Your task to perform on an android device: change the clock display to show seconds Image 0: 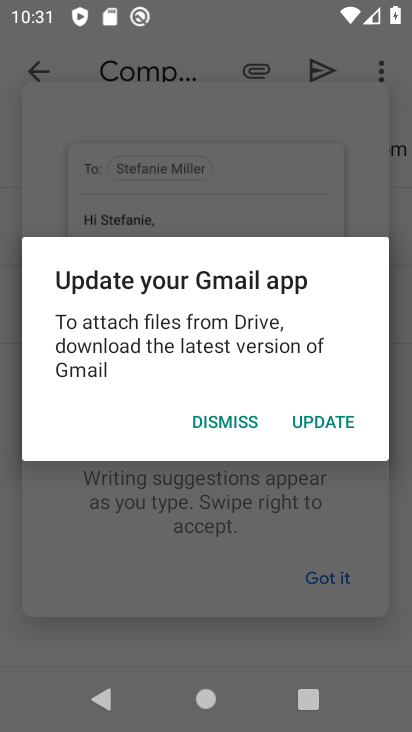
Step 0: press home button
Your task to perform on an android device: change the clock display to show seconds Image 1: 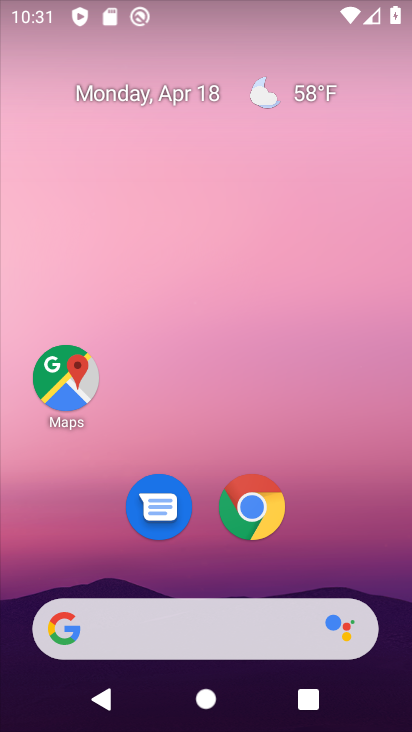
Step 1: drag from (185, 443) to (220, 33)
Your task to perform on an android device: change the clock display to show seconds Image 2: 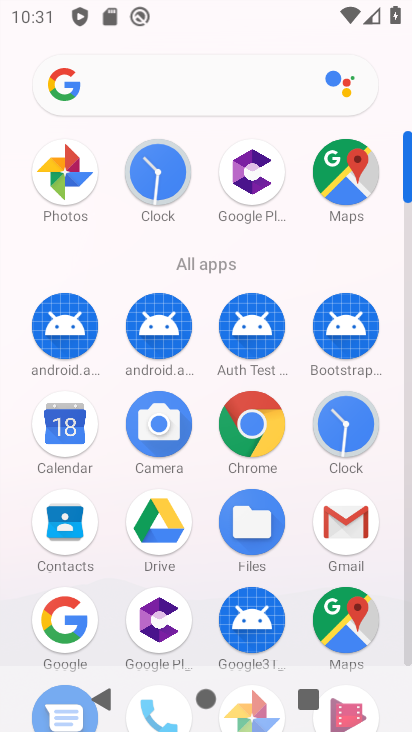
Step 2: click (359, 429)
Your task to perform on an android device: change the clock display to show seconds Image 3: 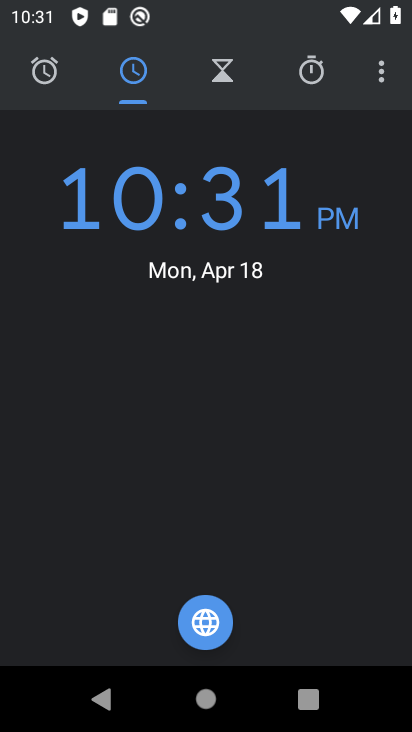
Step 3: click (388, 88)
Your task to perform on an android device: change the clock display to show seconds Image 4: 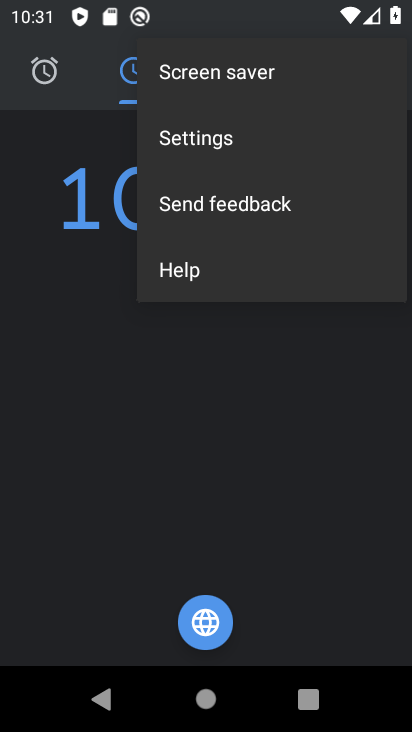
Step 4: click (192, 152)
Your task to perform on an android device: change the clock display to show seconds Image 5: 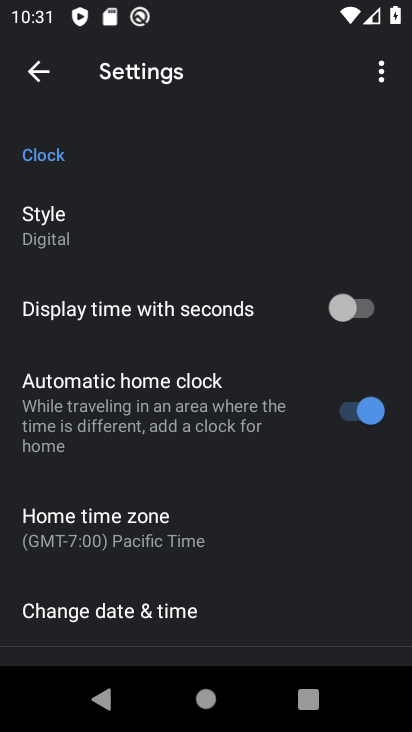
Step 5: click (366, 327)
Your task to perform on an android device: change the clock display to show seconds Image 6: 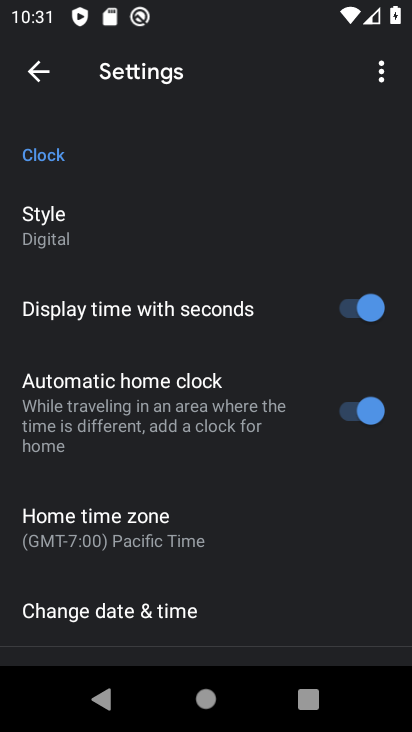
Step 6: task complete